Your task to perform on an android device: Open calendar and show me the first week of next month Image 0: 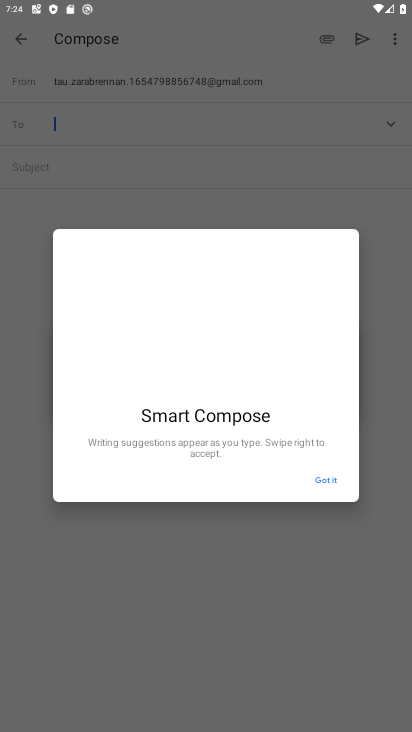
Step 0: press home button
Your task to perform on an android device: Open calendar and show me the first week of next month Image 1: 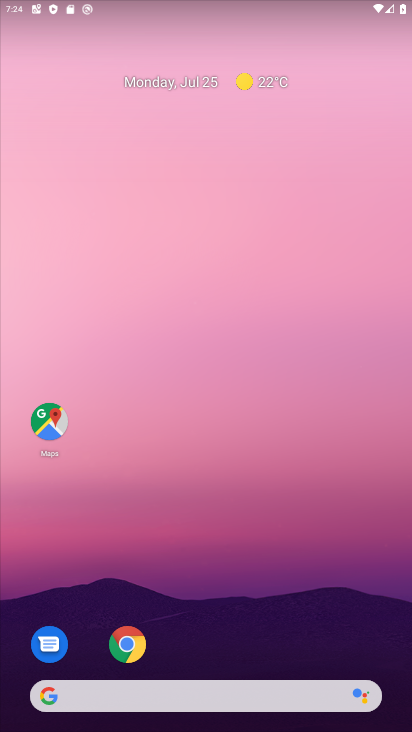
Step 1: drag from (208, 659) to (202, 20)
Your task to perform on an android device: Open calendar and show me the first week of next month Image 2: 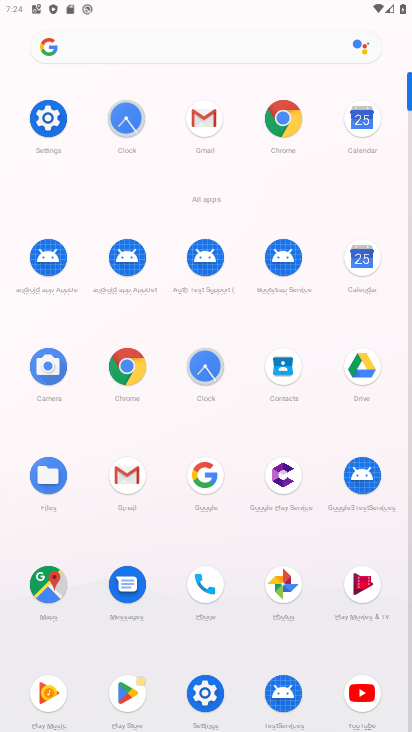
Step 2: click (356, 115)
Your task to perform on an android device: Open calendar and show me the first week of next month Image 3: 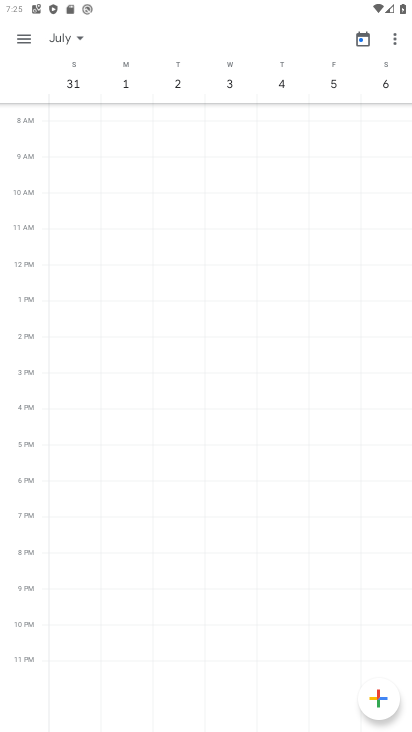
Step 3: task complete